Your task to perform on an android device: Go to network settings Image 0: 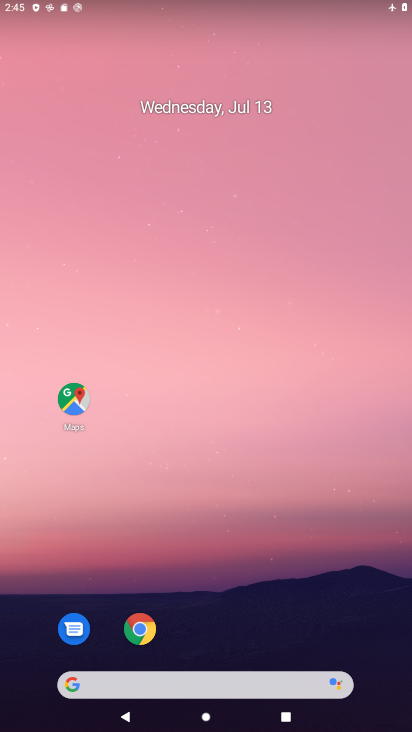
Step 0: drag from (280, 654) to (288, 137)
Your task to perform on an android device: Go to network settings Image 1: 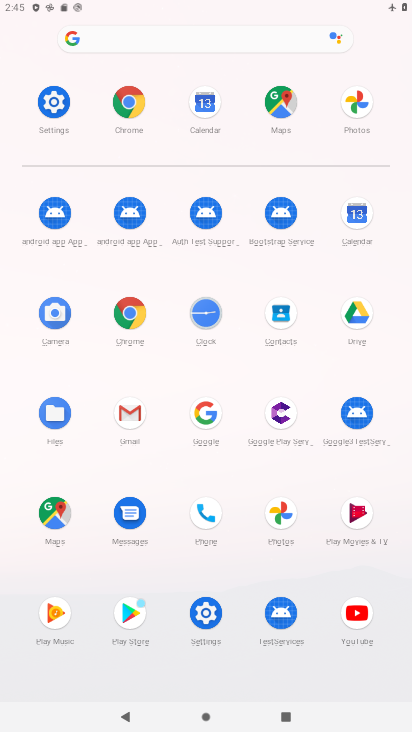
Step 1: click (52, 113)
Your task to perform on an android device: Go to network settings Image 2: 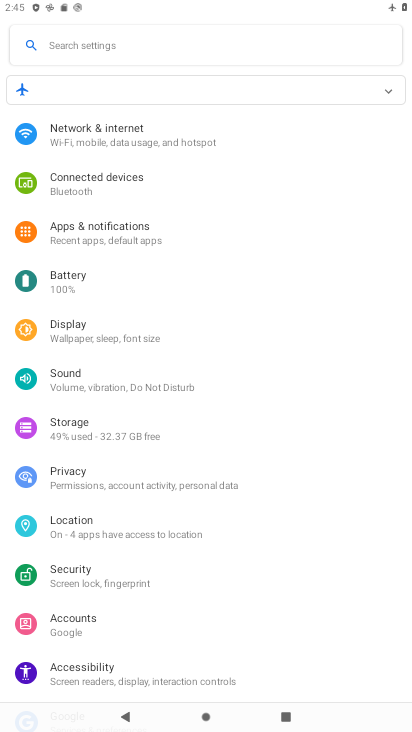
Step 2: click (190, 137)
Your task to perform on an android device: Go to network settings Image 3: 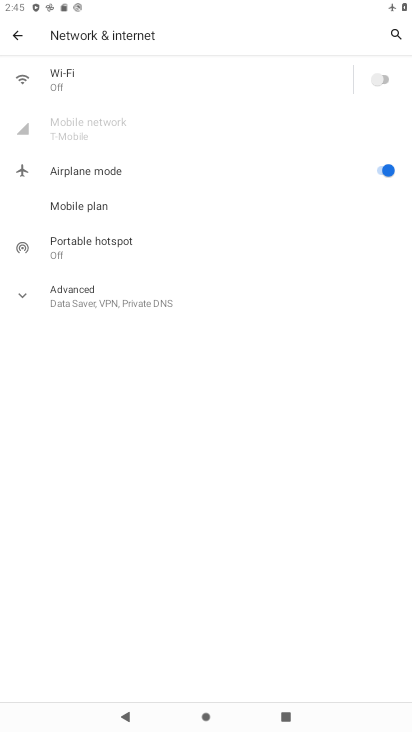
Step 3: task complete